Your task to perform on an android device: toggle notification dots Image 0: 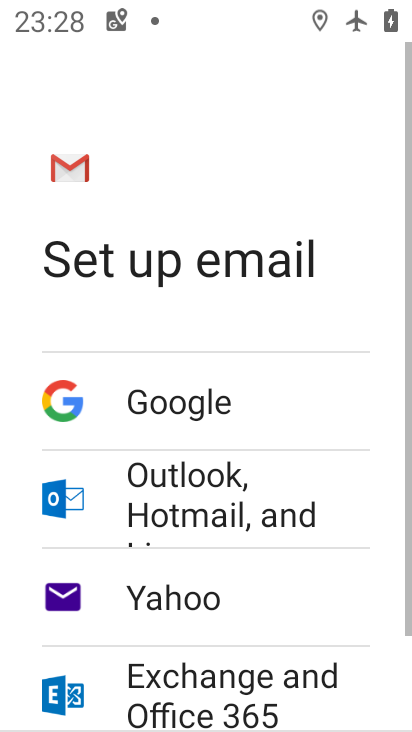
Step 0: press home button
Your task to perform on an android device: toggle notification dots Image 1: 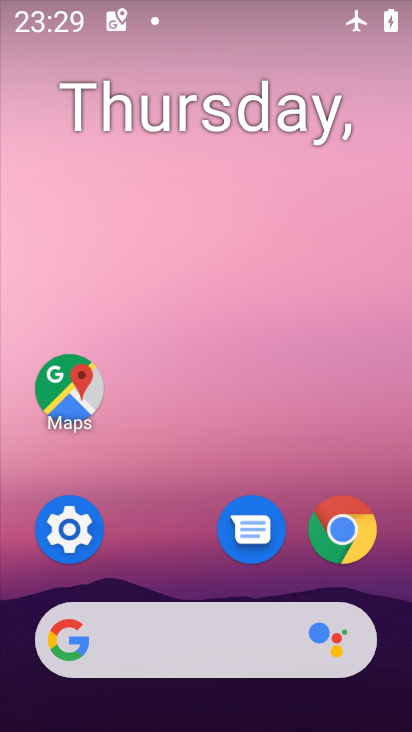
Step 1: click (47, 517)
Your task to perform on an android device: toggle notification dots Image 2: 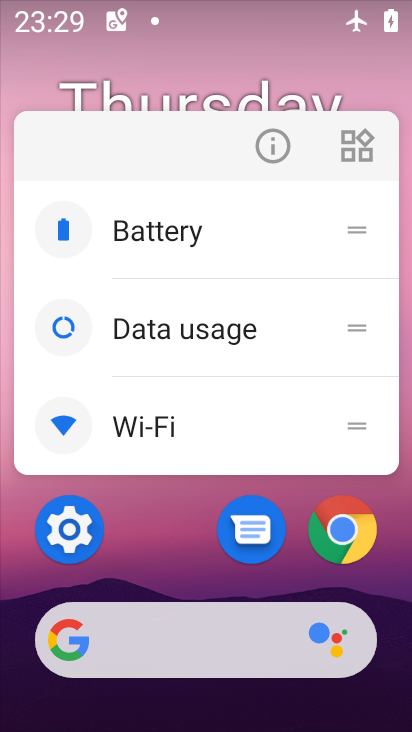
Step 2: click (47, 517)
Your task to perform on an android device: toggle notification dots Image 3: 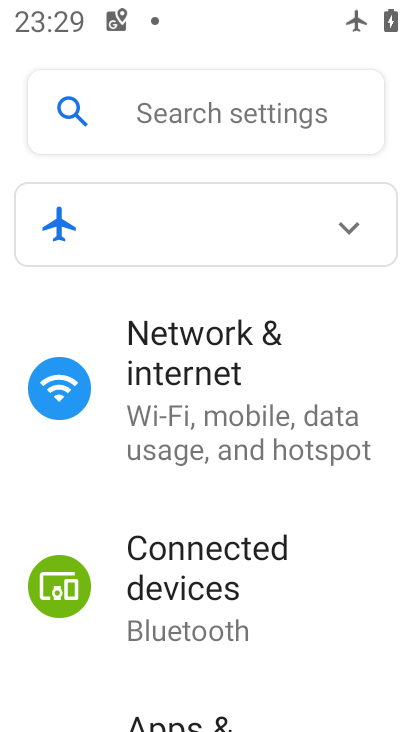
Step 3: drag from (320, 663) to (297, 125)
Your task to perform on an android device: toggle notification dots Image 4: 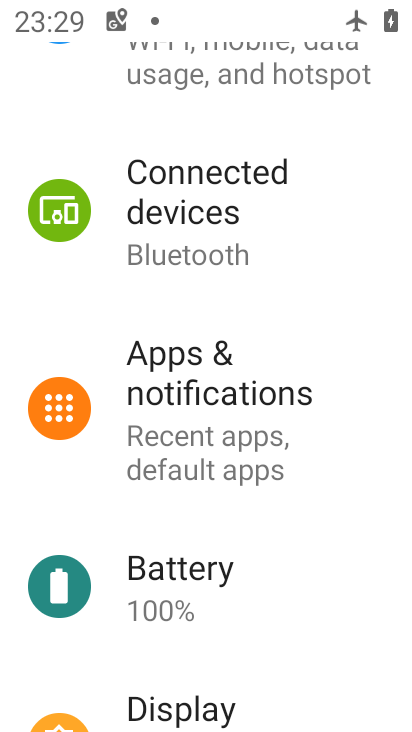
Step 4: click (308, 416)
Your task to perform on an android device: toggle notification dots Image 5: 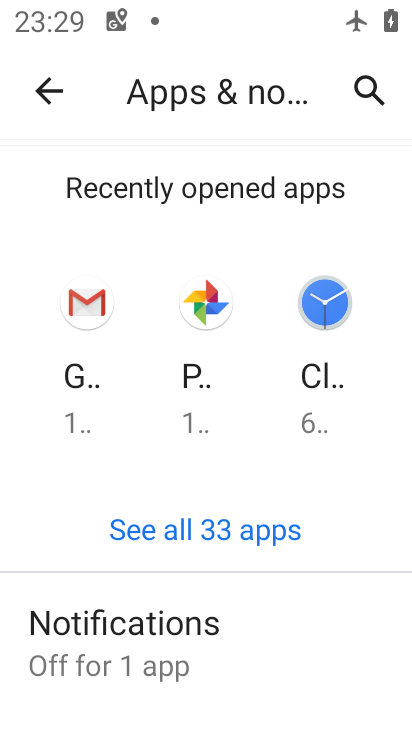
Step 5: drag from (296, 630) to (297, 23)
Your task to perform on an android device: toggle notification dots Image 6: 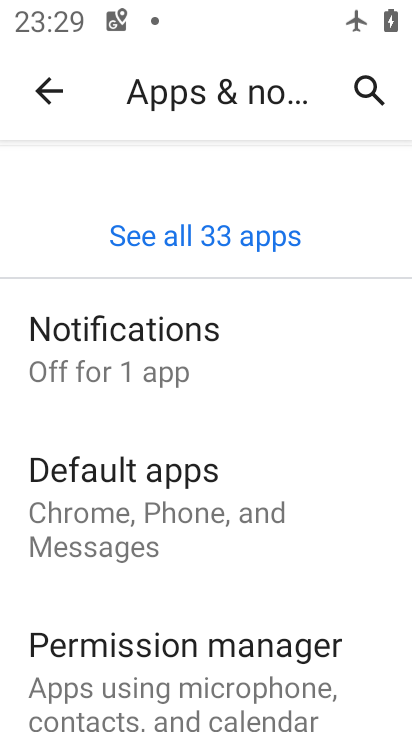
Step 6: click (200, 363)
Your task to perform on an android device: toggle notification dots Image 7: 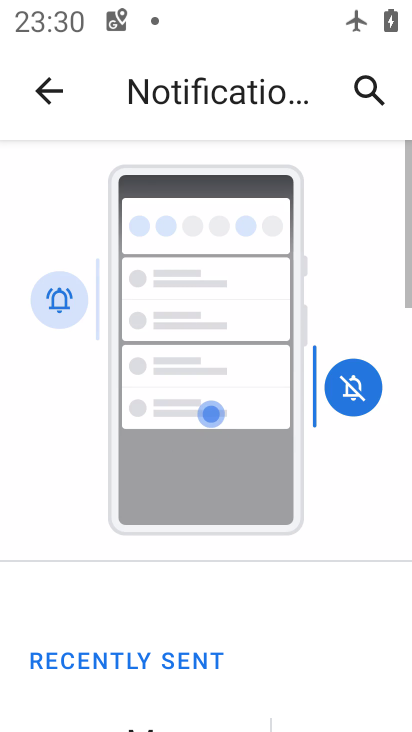
Step 7: drag from (323, 690) to (293, 49)
Your task to perform on an android device: toggle notification dots Image 8: 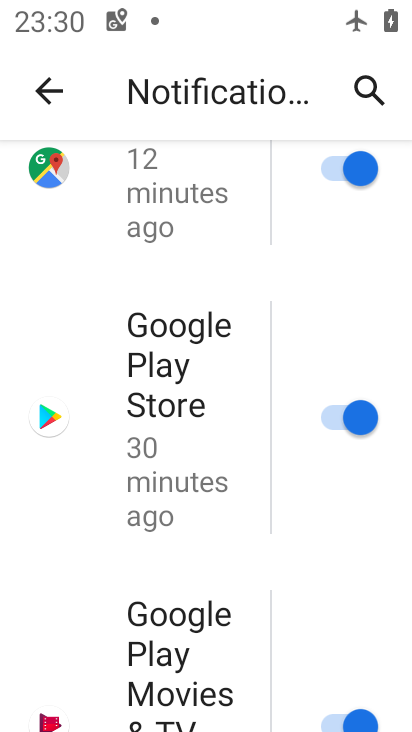
Step 8: drag from (230, 425) to (196, 23)
Your task to perform on an android device: toggle notification dots Image 9: 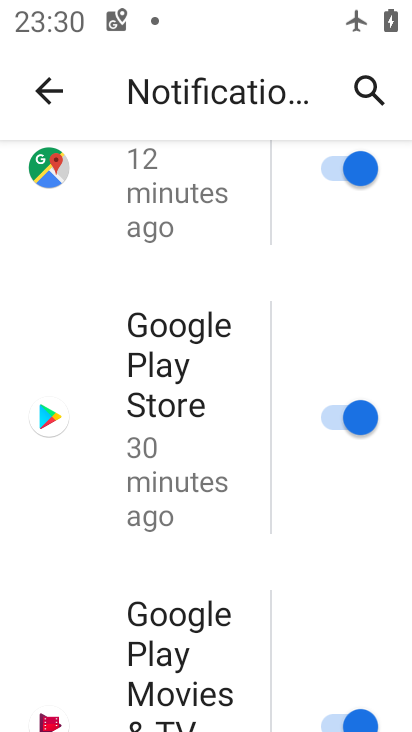
Step 9: drag from (279, 682) to (232, 44)
Your task to perform on an android device: toggle notification dots Image 10: 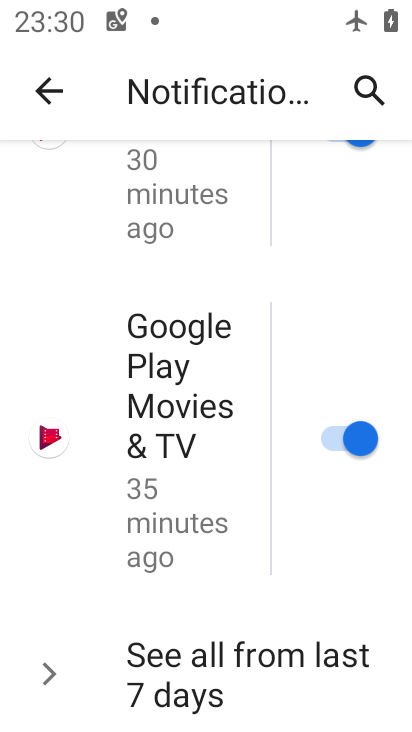
Step 10: drag from (244, 518) to (184, 77)
Your task to perform on an android device: toggle notification dots Image 11: 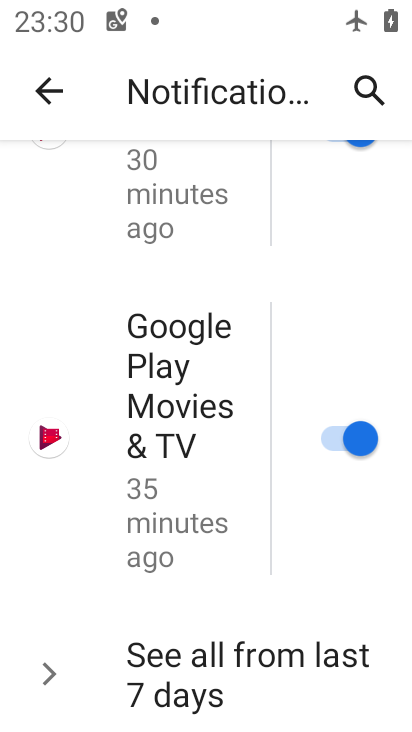
Step 11: drag from (171, 666) to (150, 65)
Your task to perform on an android device: toggle notification dots Image 12: 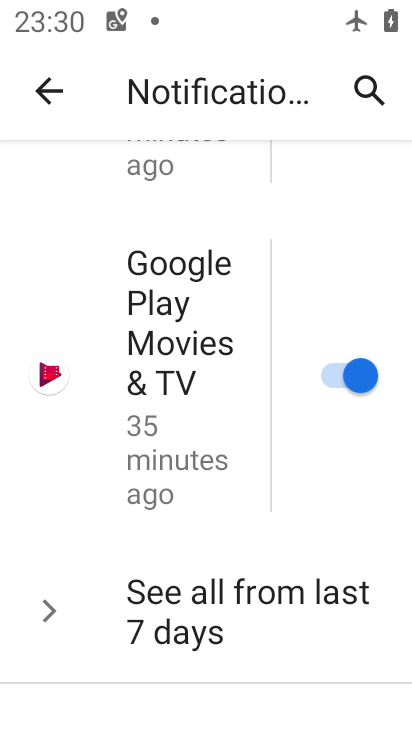
Step 12: drag from (187, 451) to (175, 15)
Your task to perform on an android device: toggle notification dots Image 13: 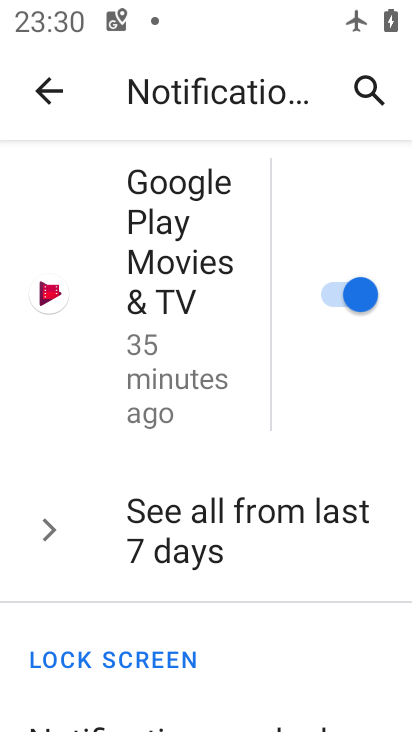
Step 13: drag from (268, 661) to (373, 20)
Your task to perform on an android device: toggle notification dots Image 14: 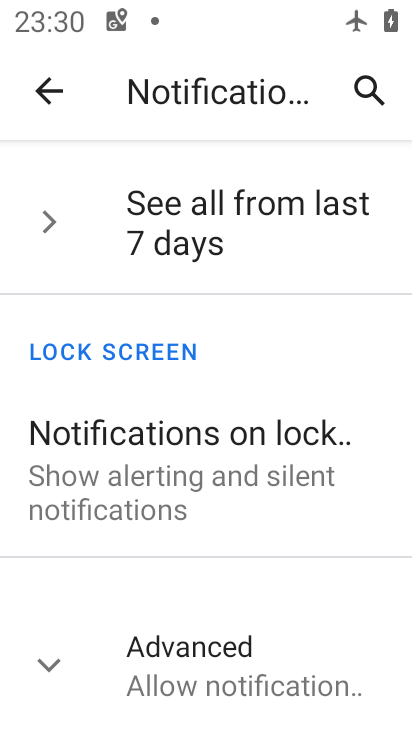
Step 14: click (262, 678)
Your task to perform on an android device: toggle notification dots Image 15: 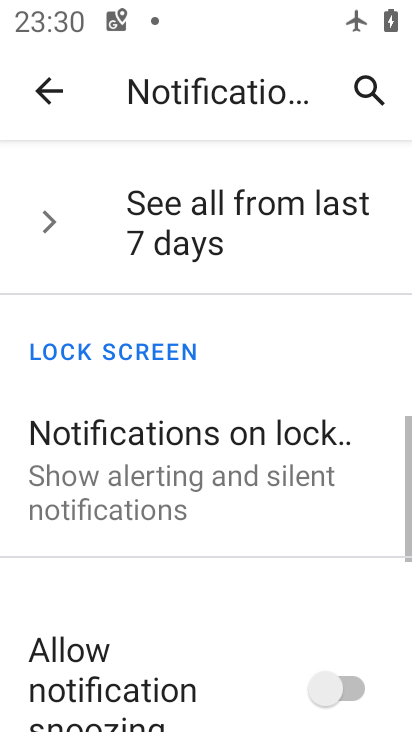
Step 15: drag from (136, 670) to (255, 4)
Your task to perform on an android device: toggle notification dots Image 16: 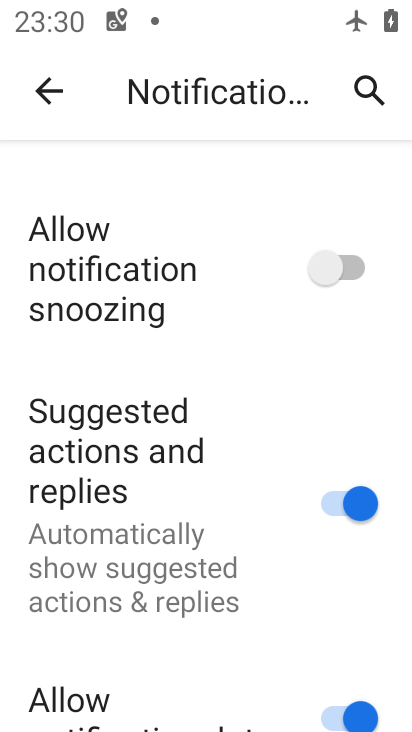
Step 16: drag from (164, 659) to (250, 27)
Your task to perform on an android device: toggle notification dots Image 17: 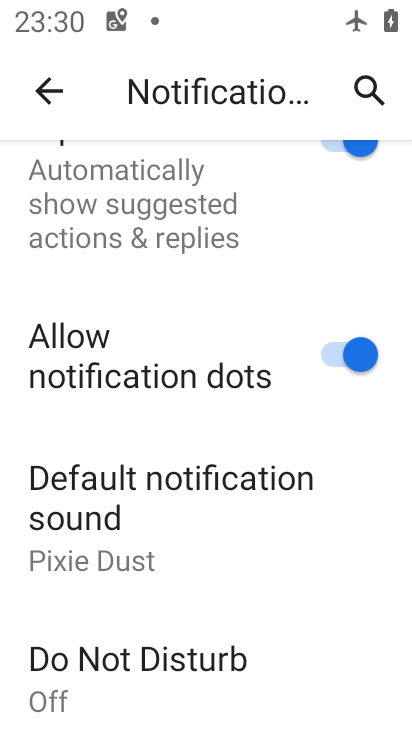
Step 17: click (365, 349)
Your task to perform on an android device: toggle notification dots Image 18: 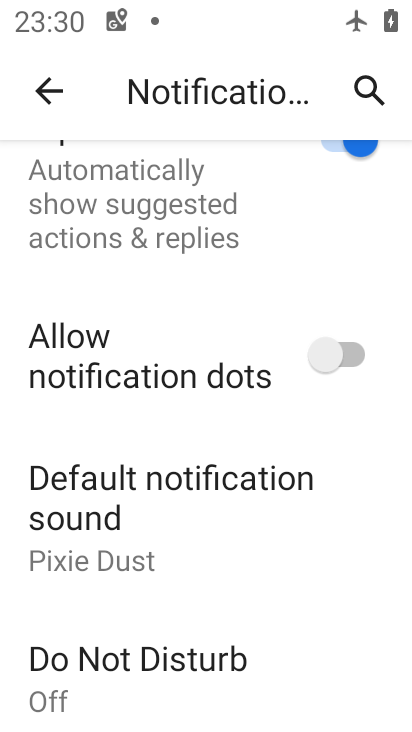
Step 18: task complete